Your task to perform on an android device: Go to privacy settings Image 0: 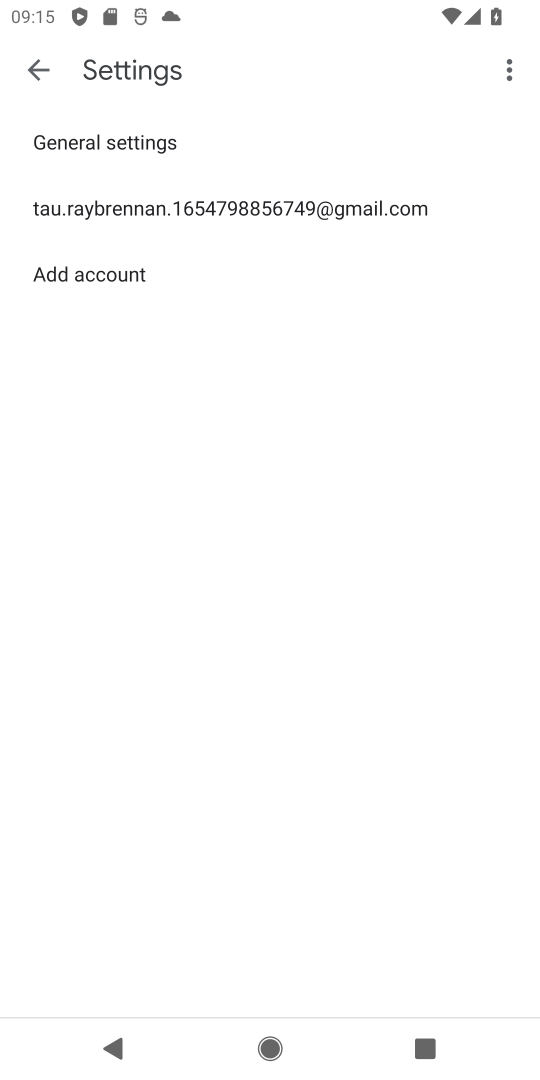
Step 0: press home button
Your task to perform on an android device: Go to privacy settings Image 1: 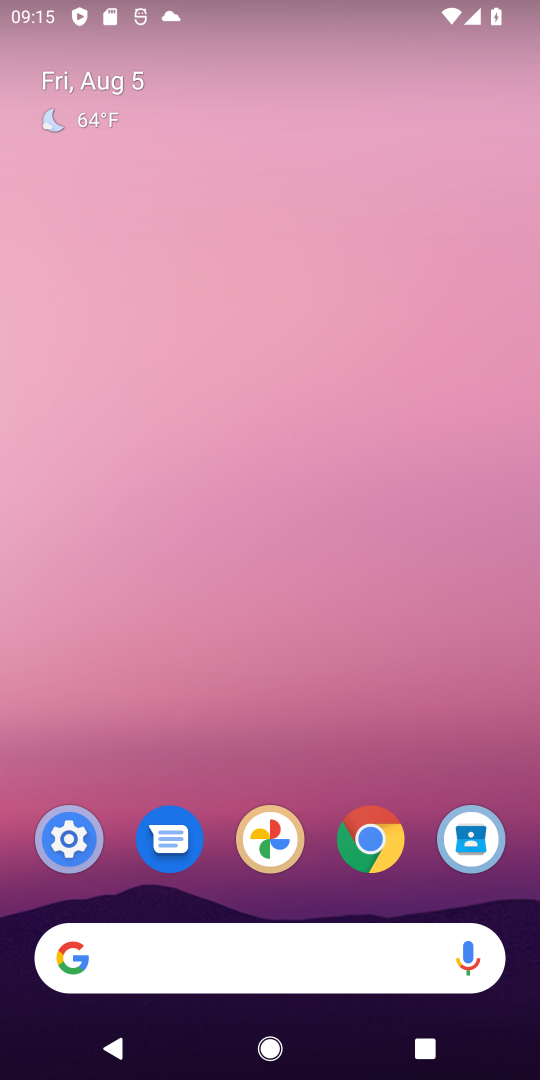
Step 1: drag from (341, 892) to (318, 38)
Your task to perform on an android device: Go to privacy settings Image 2: 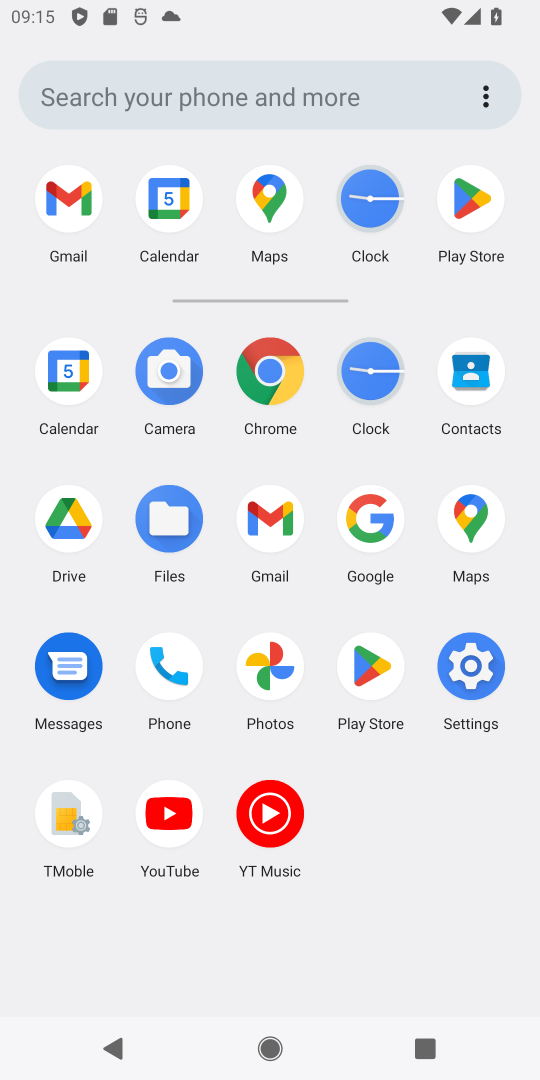
Step 2: click (471, 652)
Your task to perform on an android device: Go to privacy settings Image 3: 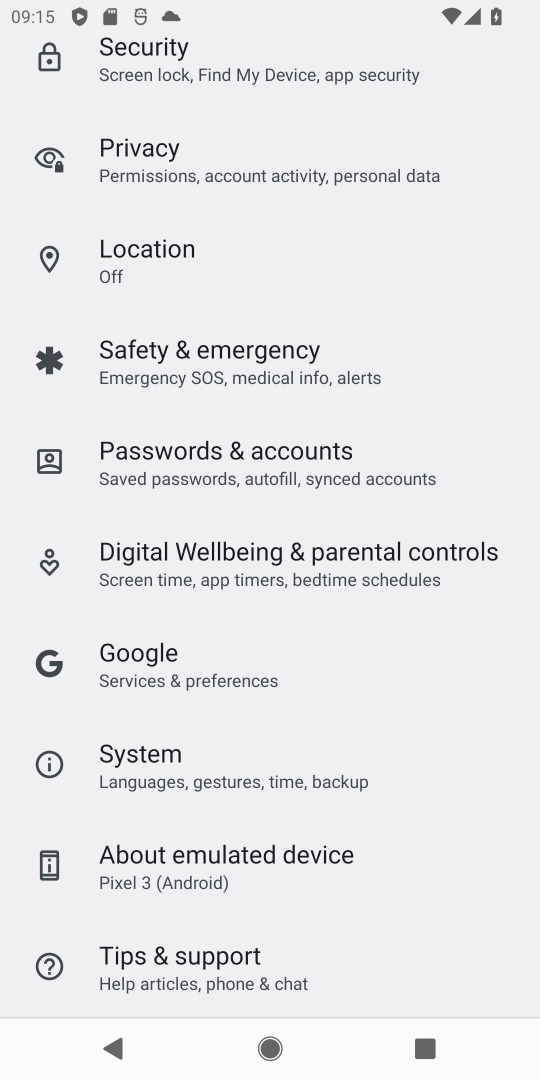
Step 3: click (132, 159)
Your task to perform on an android device: Go to privacy settings Image 4: 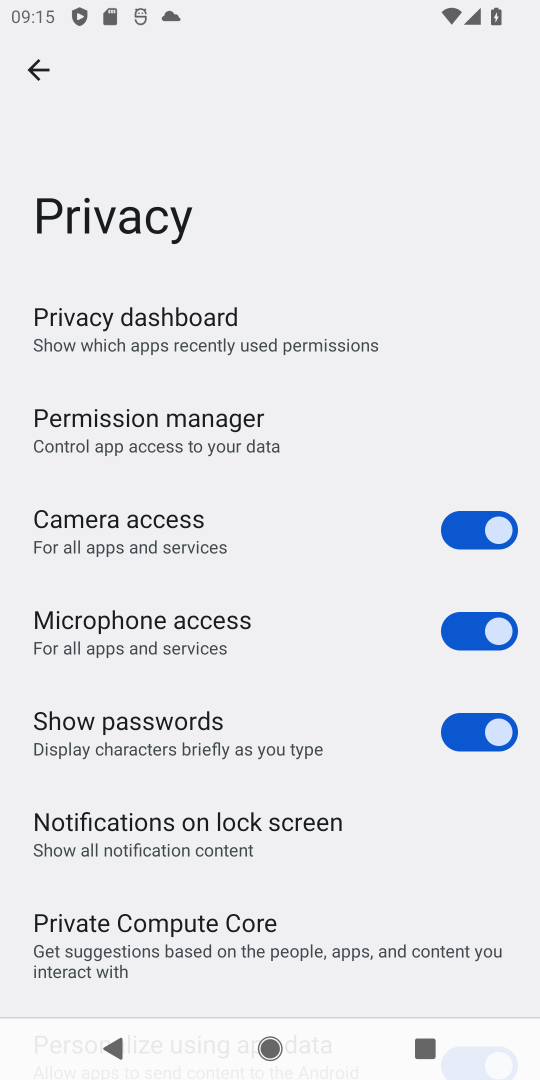
Step 4: task complete